Your task to perform on an android device: manage bookmarks in the chrome app Image 0: 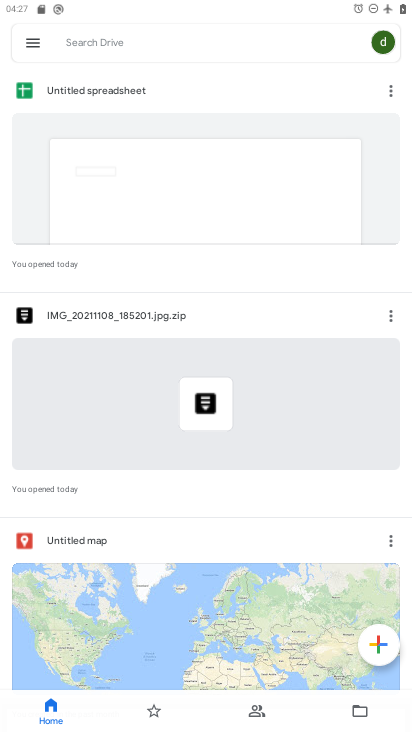
Step 0: press home button
Your task to perform on an android device: manage bookmarks in the chrome app Image 1: 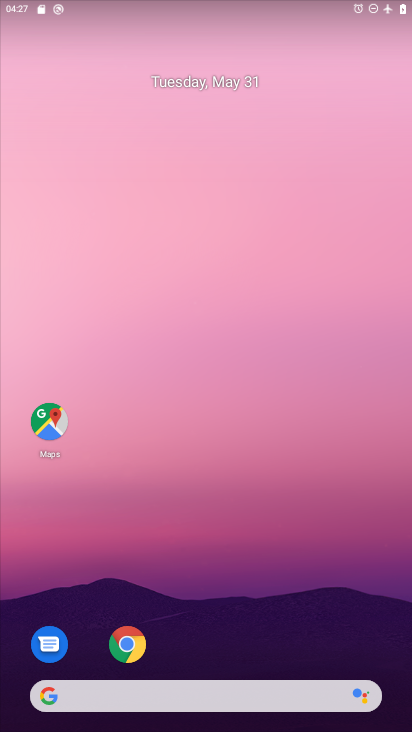
Step 1: click (128, 646)
Your task to perform on an android device: manage bookmarks in the chrome app Image 2: 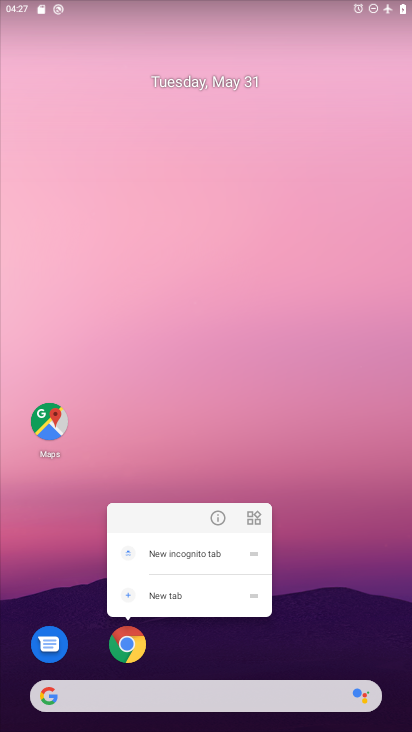
Step 2: click (122, 645)
Your task to perform on an android device: manage bookmarks in the chrome app Image 3: 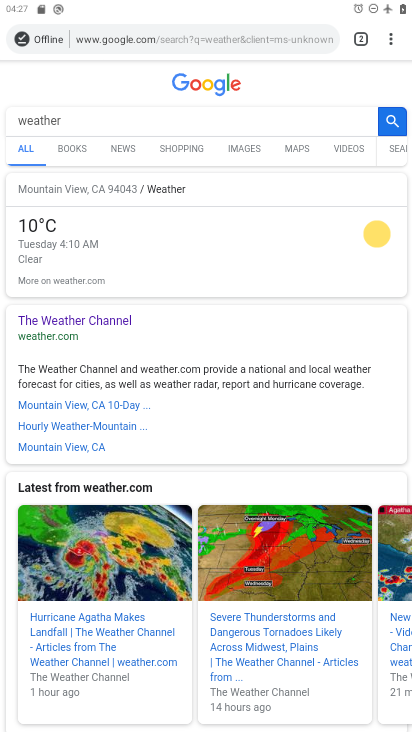
Step 3: drag from (392, 38) to (271, 146)
Your task to perform on an android device: manage bookmarks in the chrome app Image 4: 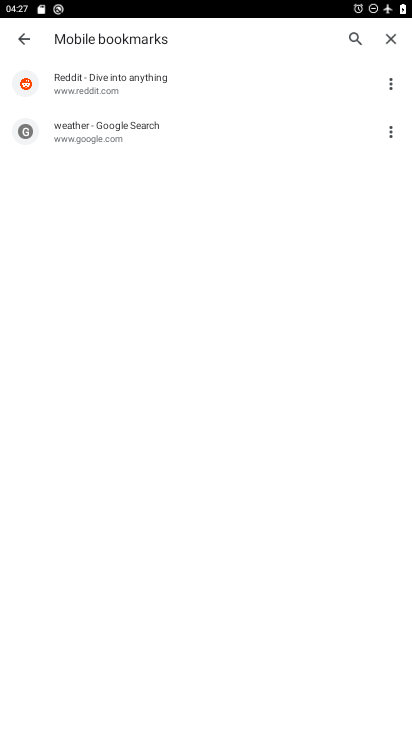
Step 4: click (395, 125)
Your task to perform on an android device: manage bookmarks in the chrome app Image 5: 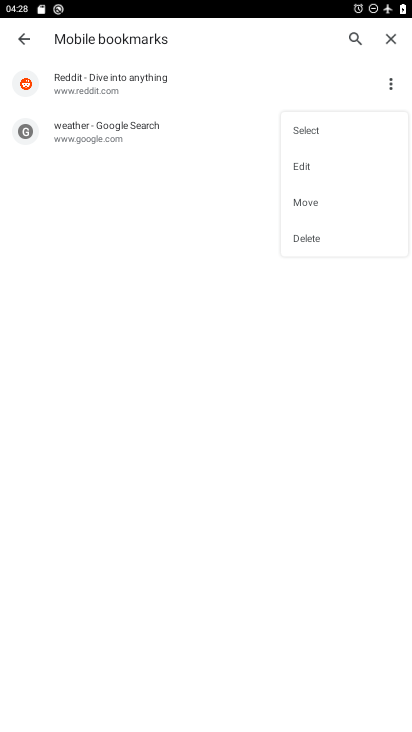
Step 5: click (302, 240)
Your task to perform on an android device: manage bookmarks in the chrome app Image 6: 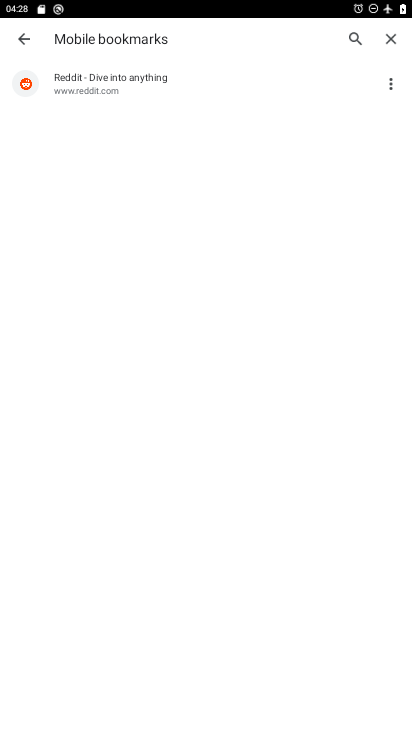
Step 6: task complete